Your task to perform on an android device: Empty the shopping cart on ebay. Add jbl charge 4 to the cart on ebay Image 0: 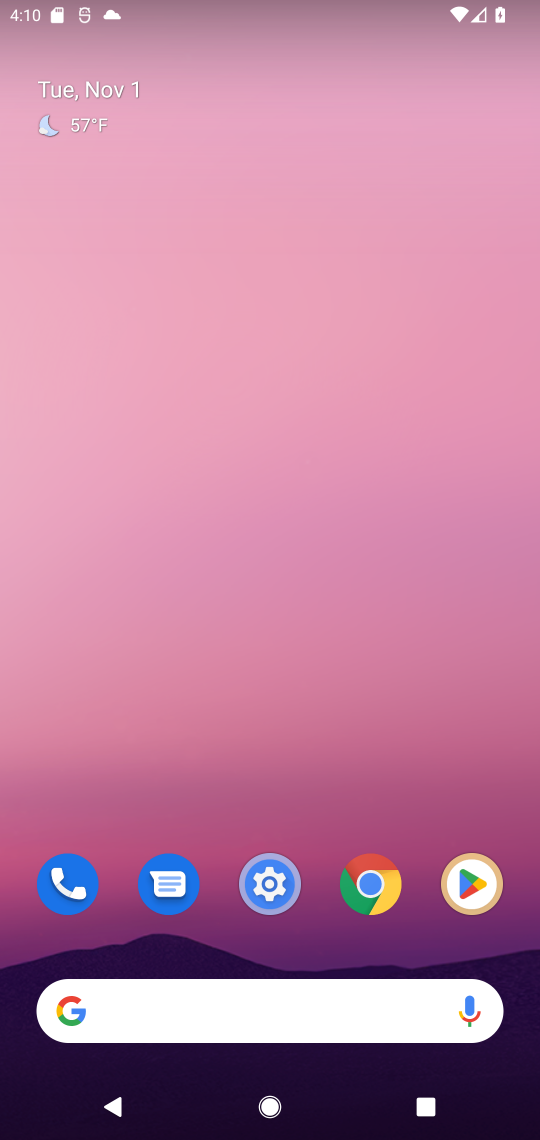
Step 0: press home button
Your task to perform on an android device: Empty the shopping cart on ebay. Add jbl charge 4 to the cart on ebay Image 1: 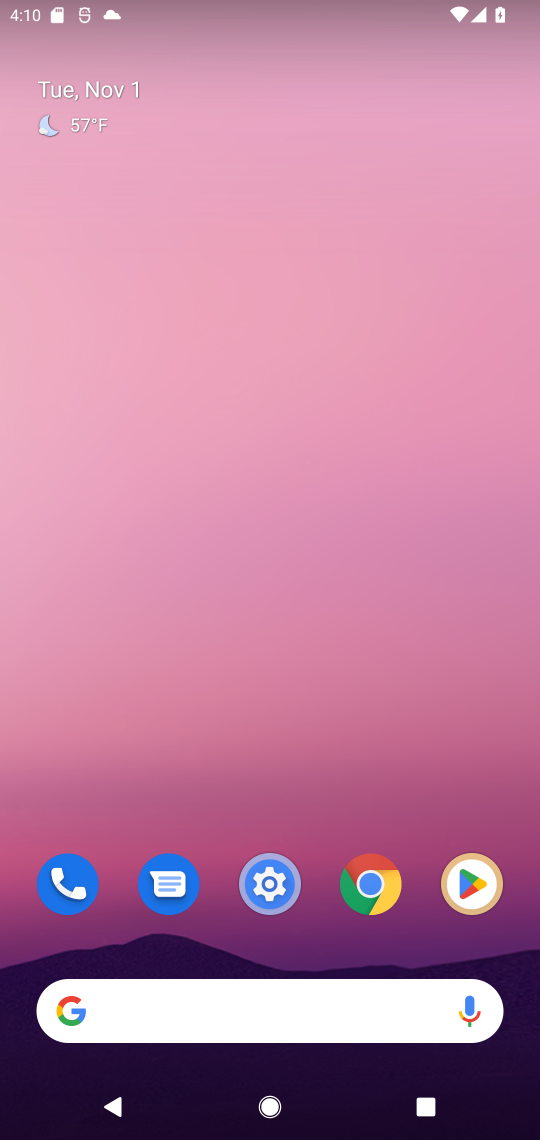
Step 1: click (97, 1004)
Your task to perform on an android device: Empty the shopping cart on ebay. Add jbl charge 4 to the cart on ebay Image 2: 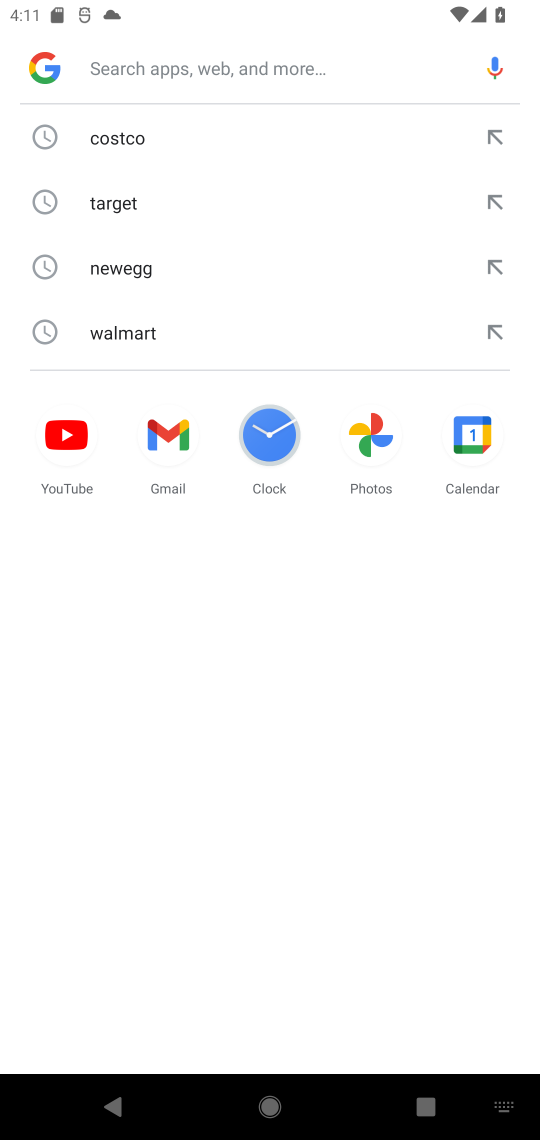
Step 2: type "ebay"
Your task to perform on an android device: Empty the shopping cart on ebay. Add jbl charge 4 to the cart on ebay Image 3: 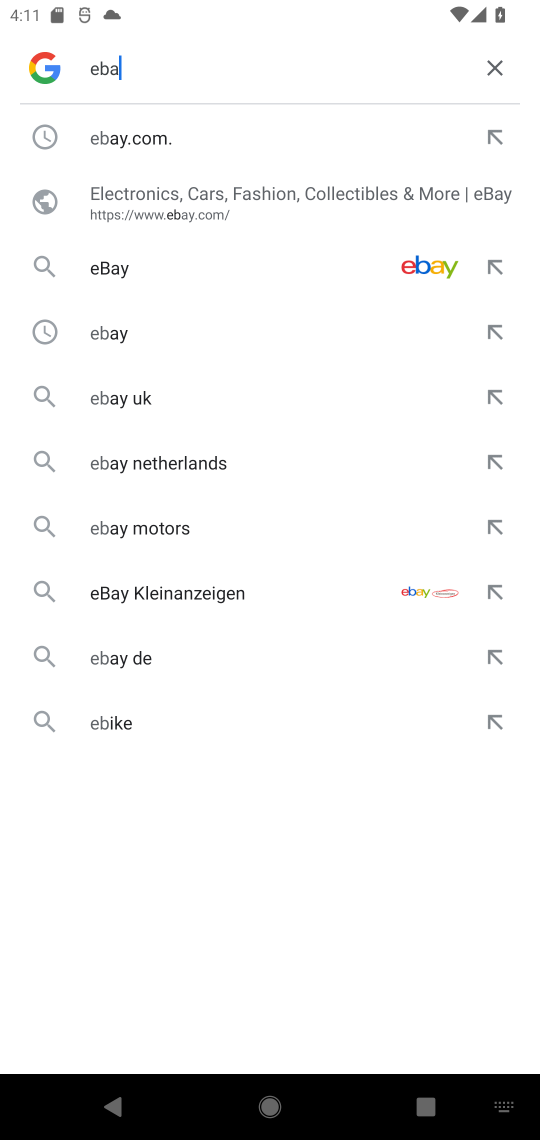
Step 3: press enter
Your task to perform on an android device: Empty the shopping cart on ebay. Add jbl charge 4 to the cart on ebay Image 4: 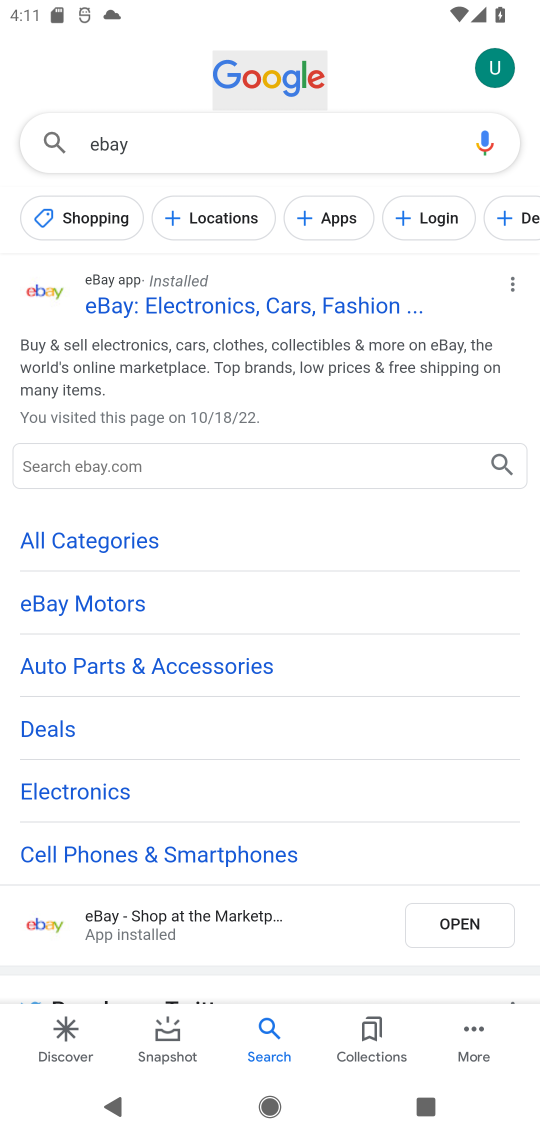
Step 4: click (109, 545)
Your task to perform on an android device: Empty the shopping cart on ebay. Add jbl charge 4 to the cart on ebay Image 5: 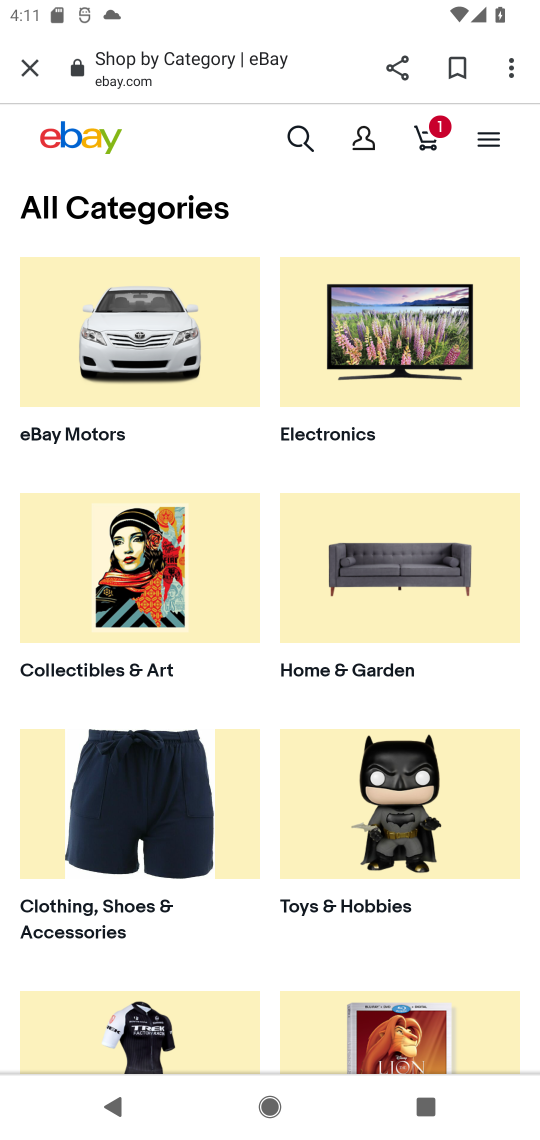
Step 5: click (430, 132)
Your task to perform on an android device: Empty the shopping cart on ebay. Add jbl charge 4 to the cart on ebay Image 6: 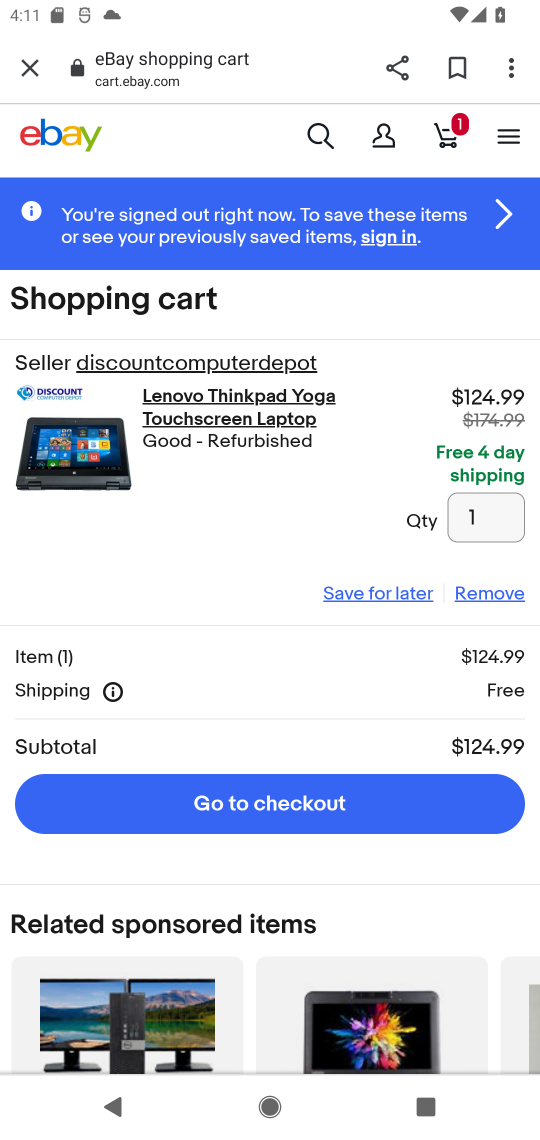
Step 6: click (503, 591)
Your task to perform on an android device: Empty the shopping cart on ebay. Add jbl charge 4 to the cart on ebay Image 7: 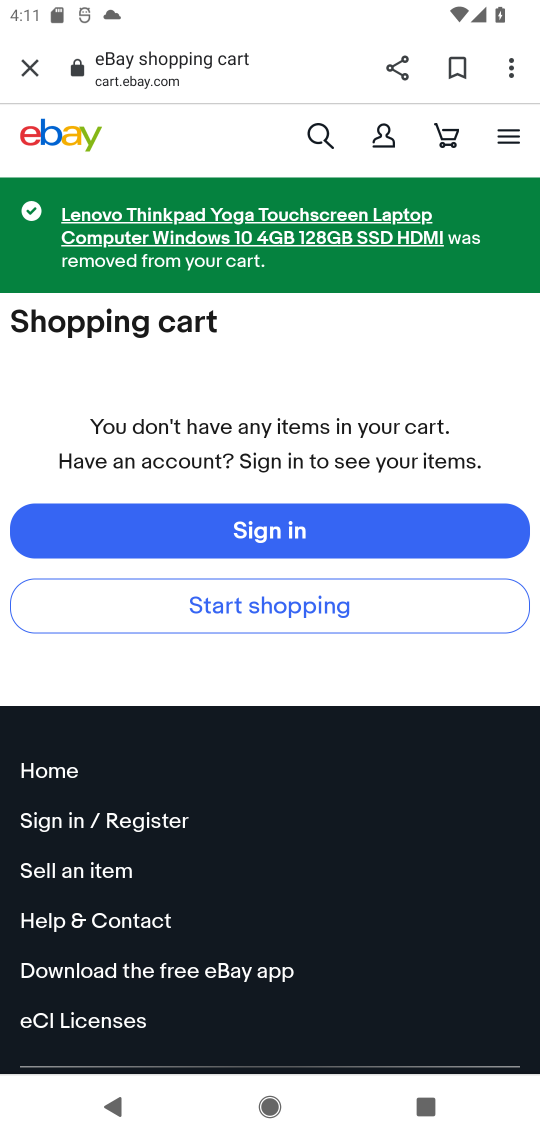
Step 7: click (316, 130)
Your task to perform on an android device: Empty the shopping cart on ebay. Add jbl charge 4 to the cart on ebay Image 8: 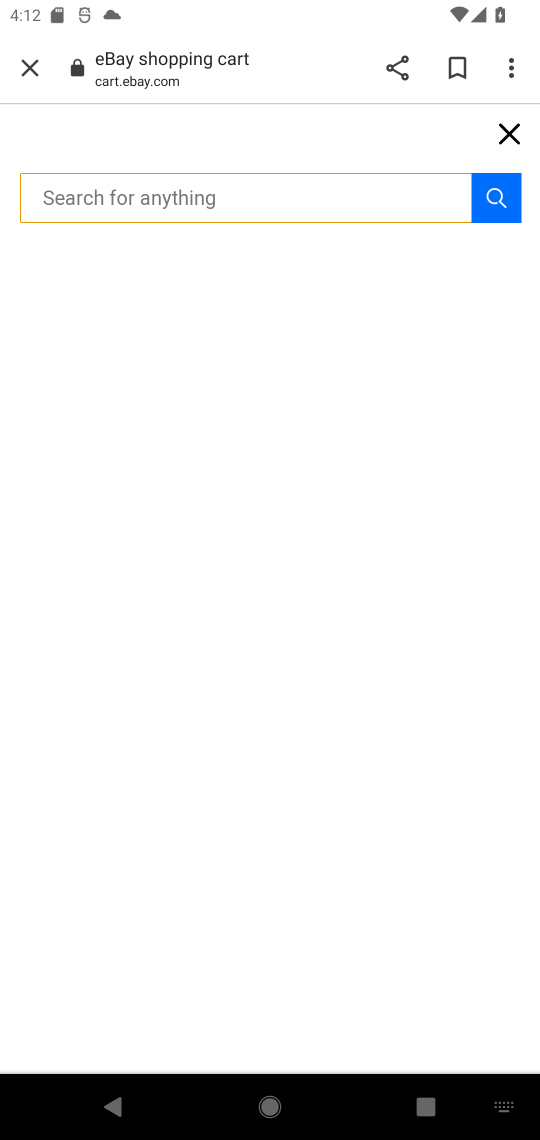
Step 8: type " jbl charge 4"
Your task to perform on an android device: Empty the shopping cart on ebay. Add jbl charge 4 to the cart on ebay Image 9: 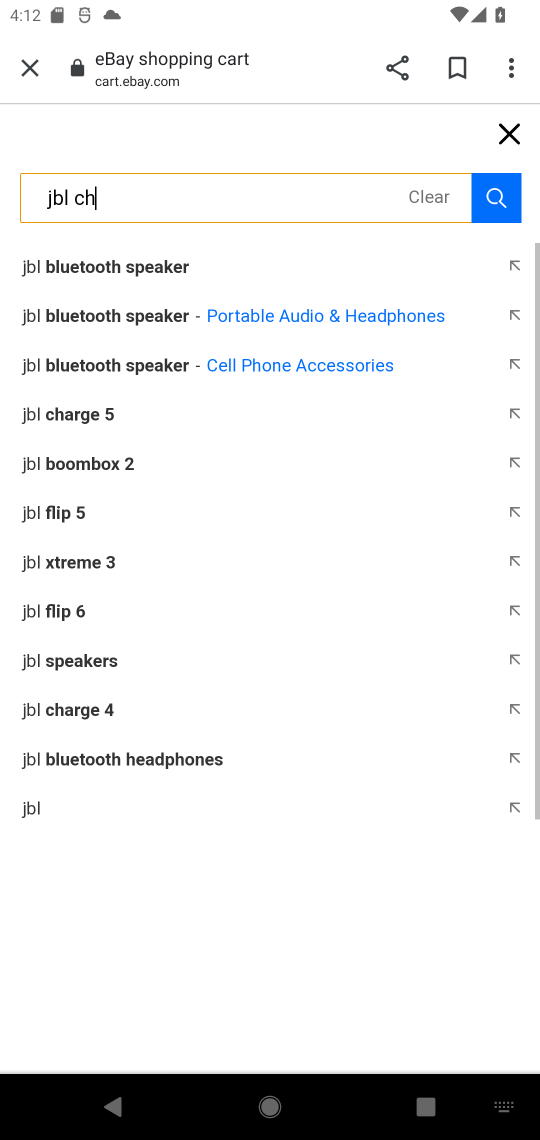
Step 9: press enter
Your task to perform on an android device: Empty the shopping cart on ebay. Add jbl charge 4 to the cart on ebay Image 10: 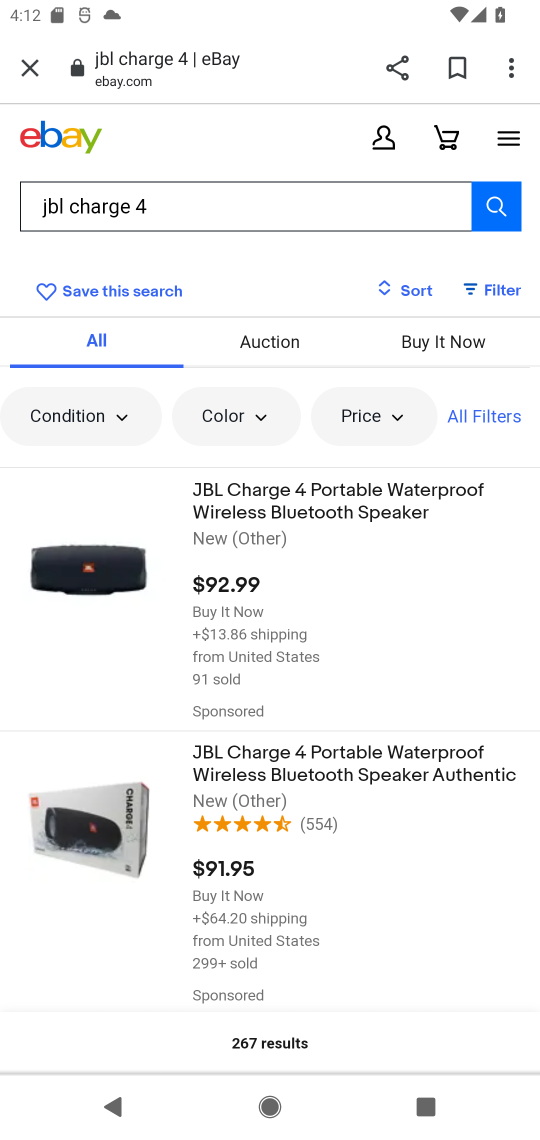
Step 10: click (264, 491)
Your task to perform on an android device: Empty the shopping cart on ebay. Add jbl charge 4 to the cart on ebay Image 11: 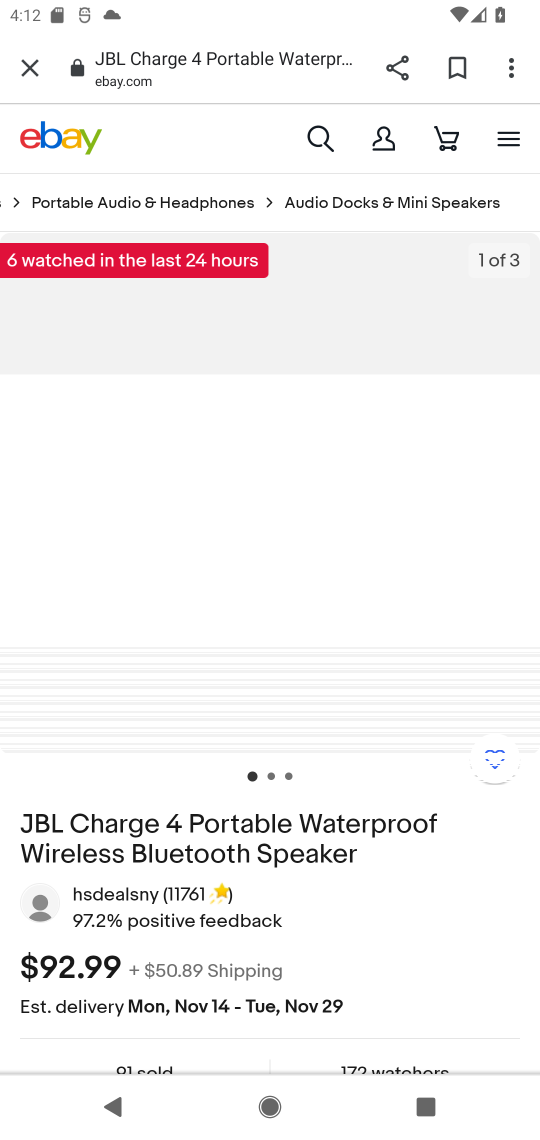
Step 11: drag from (372, 900) to (339, 554)
Your task to perform on an android device: Empty the shopping cart on ebay. Add jbl charge 4 to the cart on ebay Image 12: 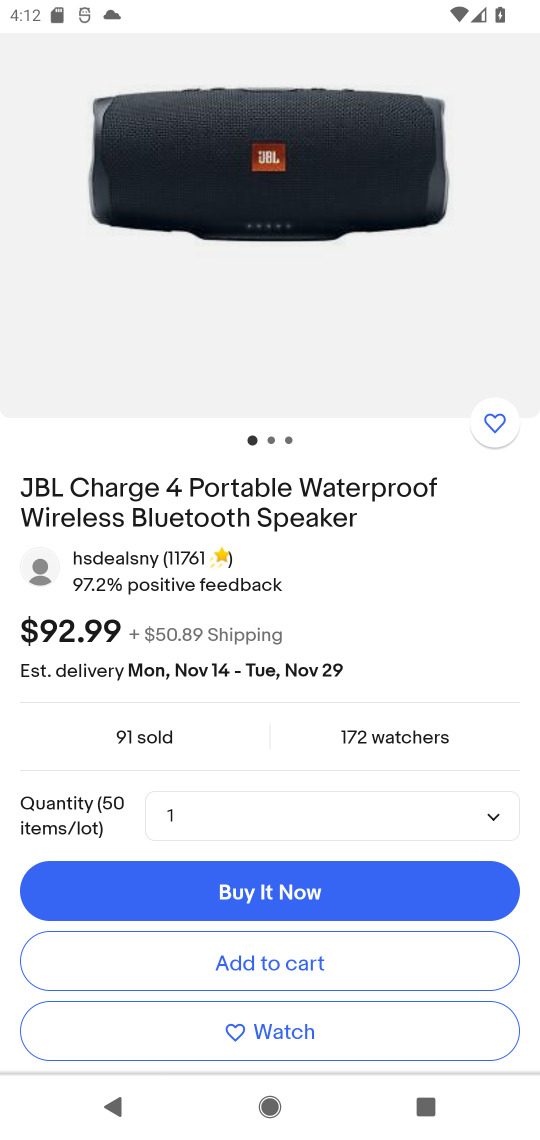
Step 12: click (333, 969)
Your task to perform on an android device: Empty the shopping cart on ebay. Add jbl charge 4 to the cart on ebay Image 13: 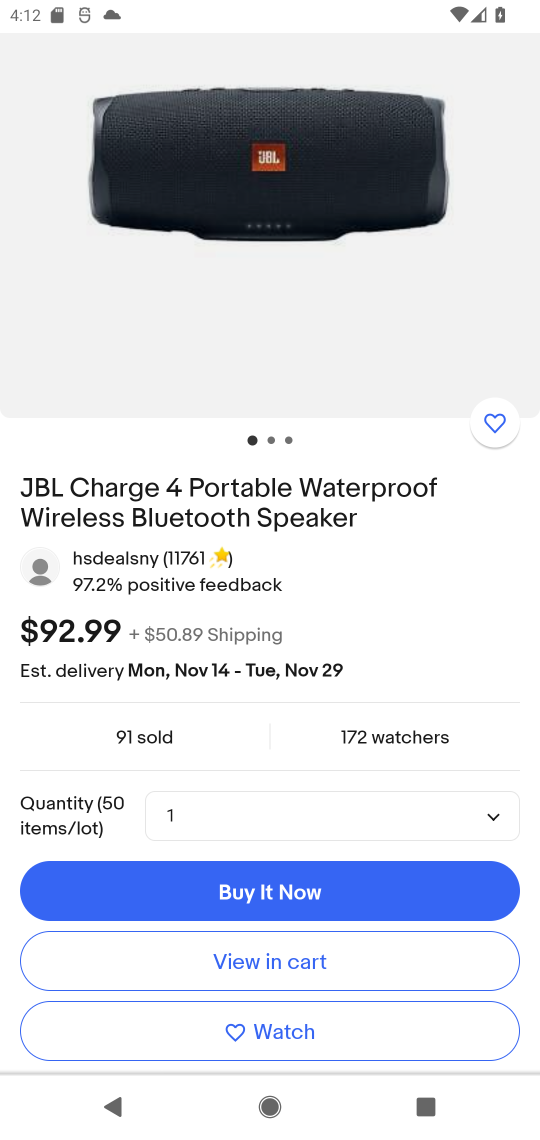
Step 13: task complete